Your task to perform on an android device: turn off improve location accuracy Image 0: 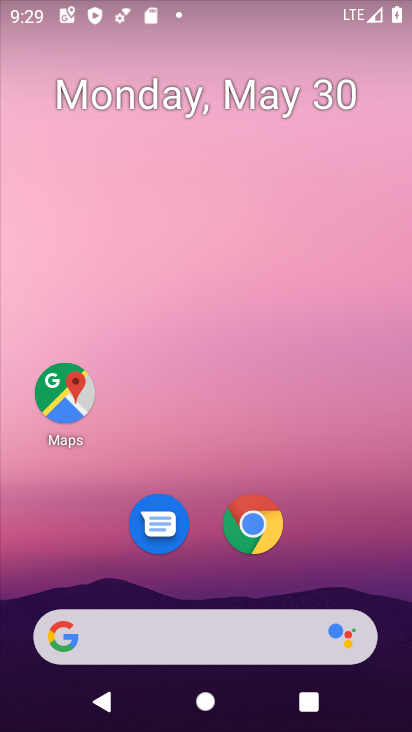
Step 0: drag from (312, 546) to (261, 3)
Your task to perform on an android device: turn off improve location accuracy Image 1: 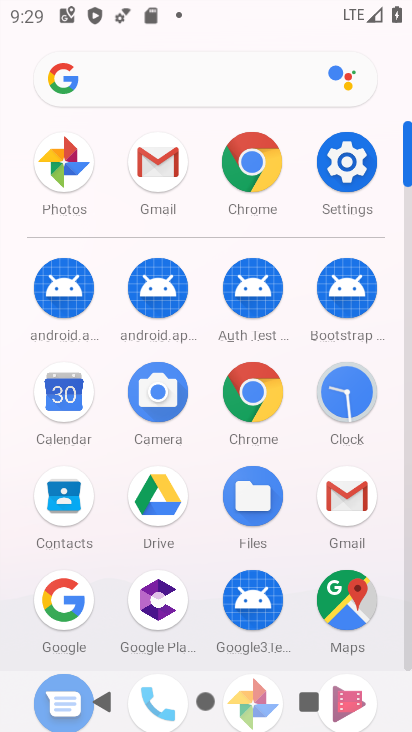
Step 1: click (347, 146)
Your task to perform on an android device: turn off improve location accuracy Image 2: 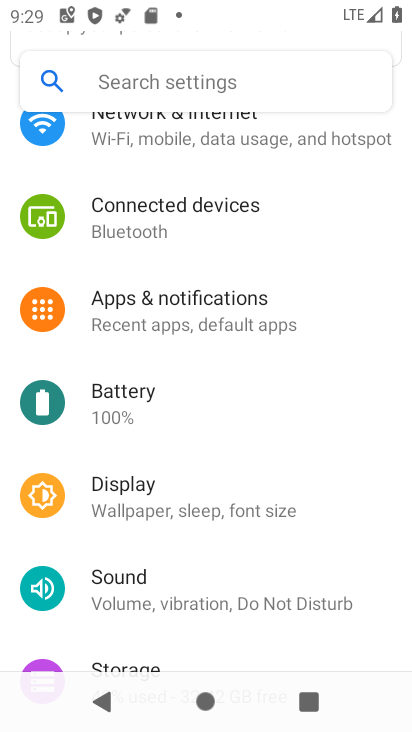
Step 2: drag from (251, 545) to (237, 216)
Your task to perform on an android device: turn off improve location accuracy Image 3: 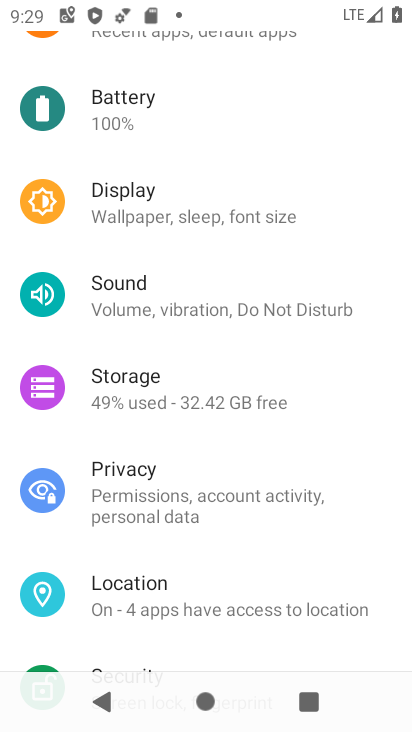
Step 3: click (218, 587)
Your task to perform on an android device: turn off improve location accuracy Image 4: 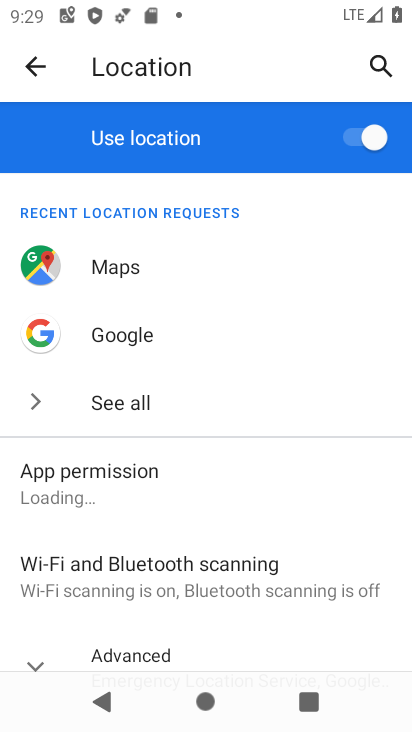
Step 4: drag from (262, 505) to (249, 219)
Your task to perform on an android device: turn off improve location accuracy Image 5: 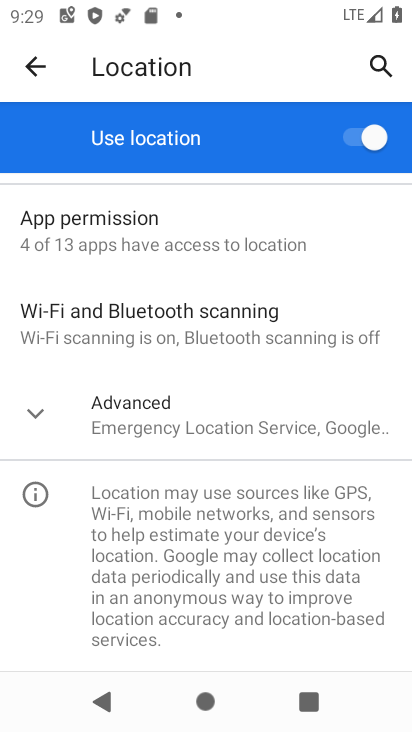
Step 5: click (32, 409)
Your task to perform on an android device: turn off improve location accuracy Image 6: 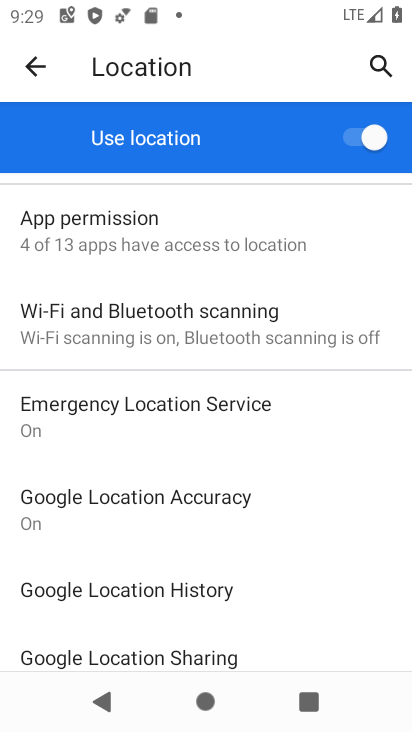
Step 6: click (194, 510)
Your task to perform on an android device: turn off improve location accuracy Image 7: 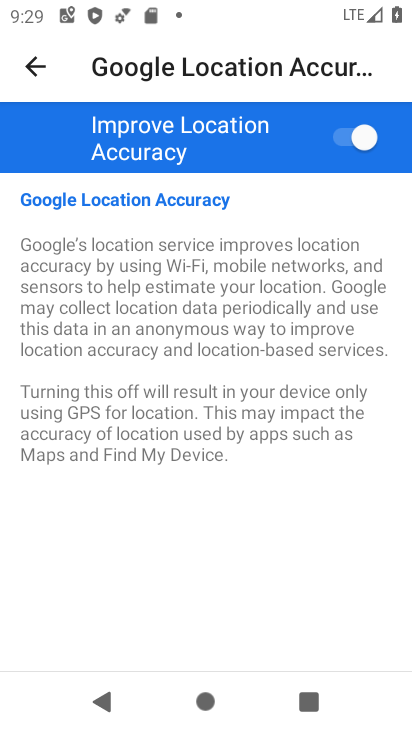
Step 7: click (352, 137)
Your task to perform on an android device: turn off improve location accuracy Image 8: 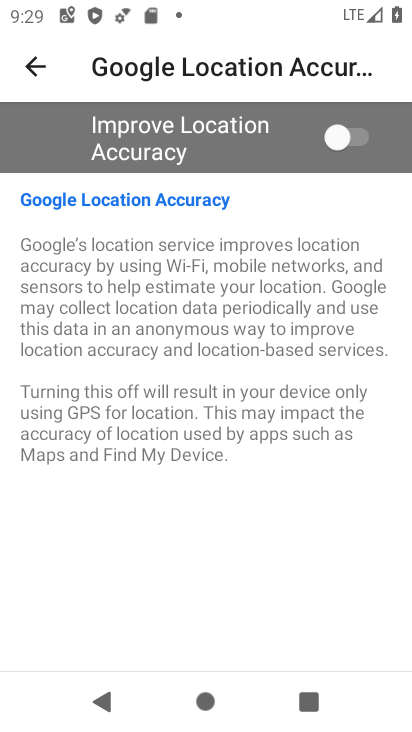
Step 8: task complete